Your task to perform on an android device: turn smart compose on in the gmail app Image 0: 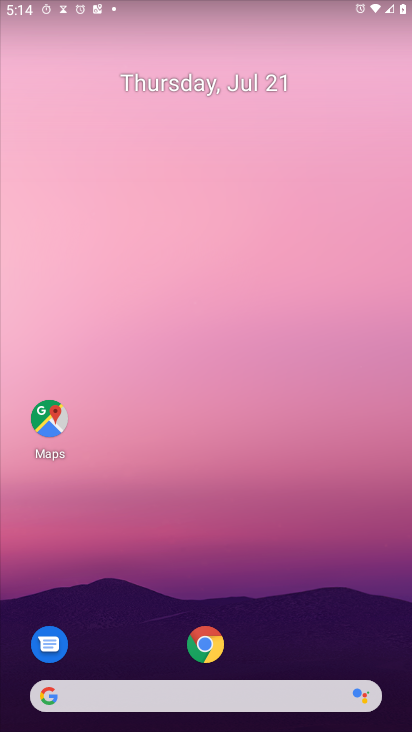
Step 0: press home button
Your task to perform on an android device: turn smart compose on in the gmail app Image 1: 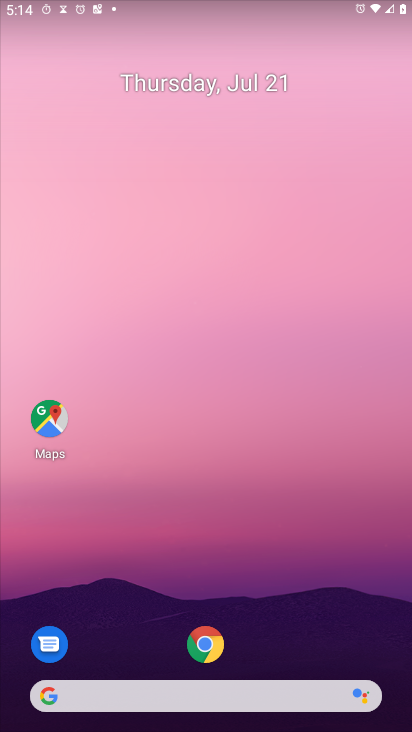
Step 1: drag from (313, 592) to (316, 13)
Your task to perform on an android device: turn smart compose on in the gmail app Image 2: 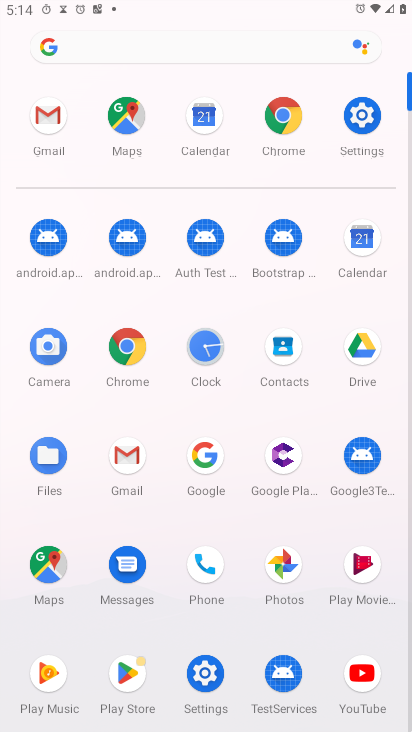
Step 2: click (43, 123)
Your task to perform on an android device: turn smart compose on in the gmail app Image 3: 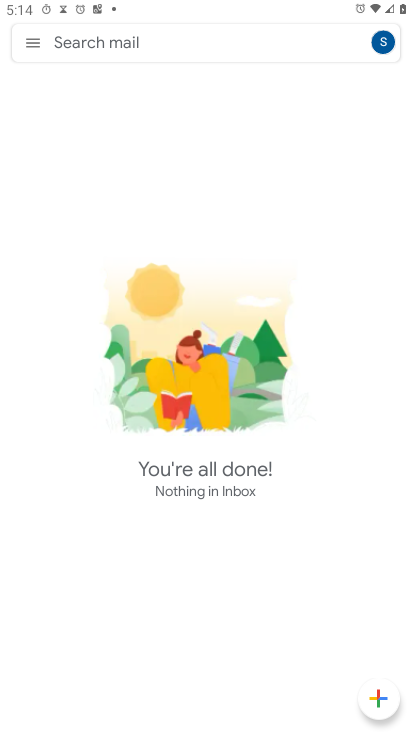
Step 3: click (34, 44)
Your task to perform on an android device: turn smart compose on in the gmail app Image 4: 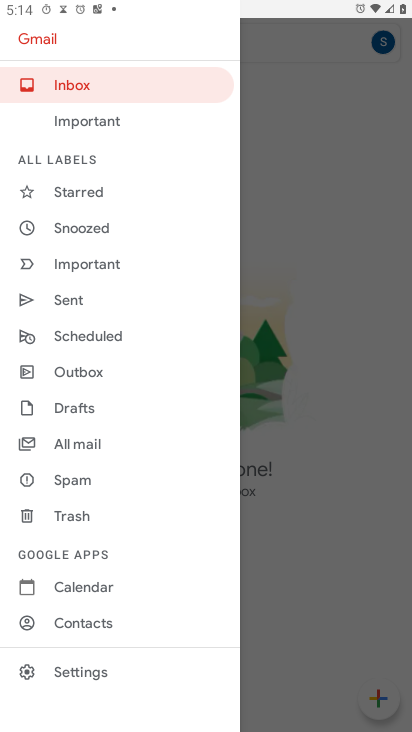
Step 4: click (93, 670)
Your task to perform on an android device: turn smart compose on in the gmail app Image 5: 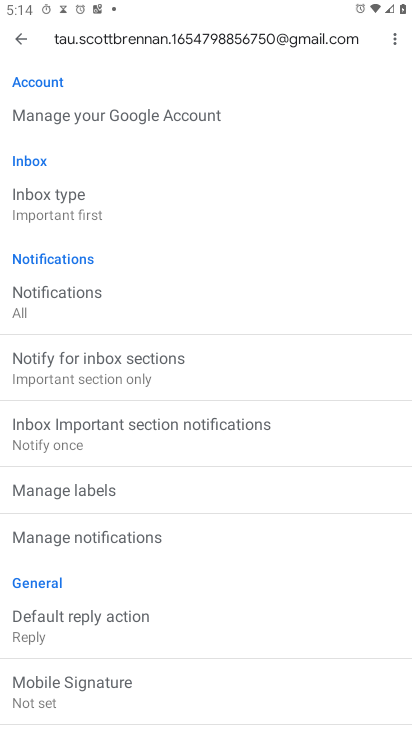
Step 5: task complete